Your task to perform on an android device: turn on translation in the chrome app Image 0: 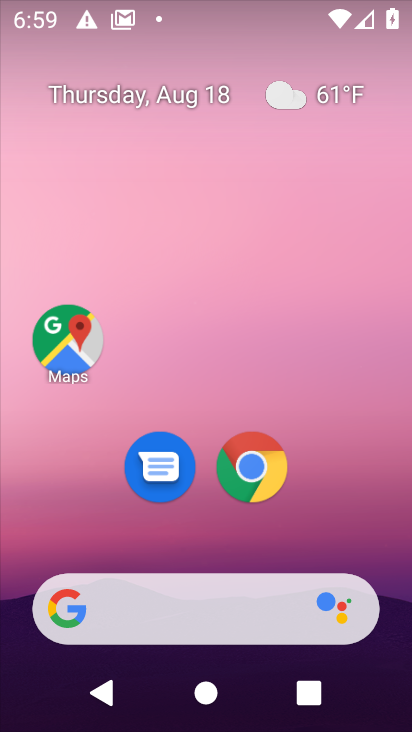
Step 0: drag from (298, 393) to (290, 122)
Your task to perform on an android device: turn on translation in the chrome app Image 1: 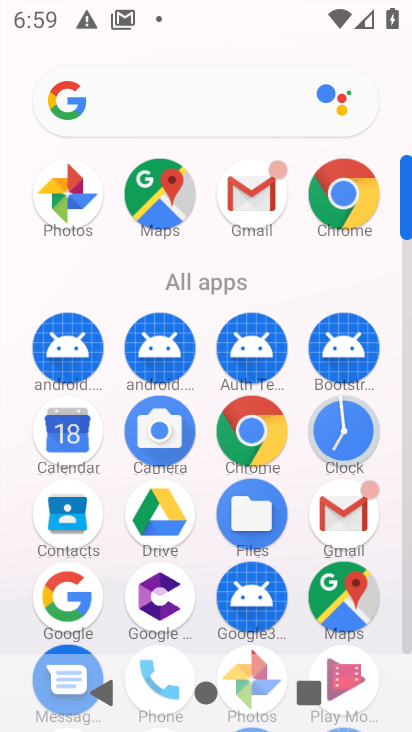
Step 1: task complete